Your task to perform on an android device: Find coffee shops on Maps Image 0: 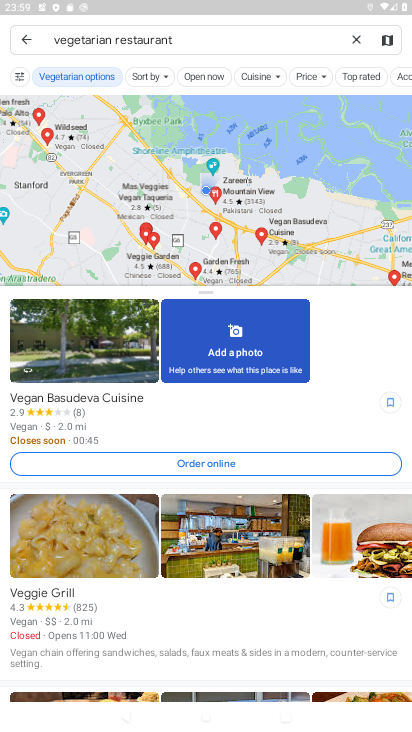
Step 0: click (285, 38)
Your task to perform on an android device: Find coffee shops on Maps Image 1: 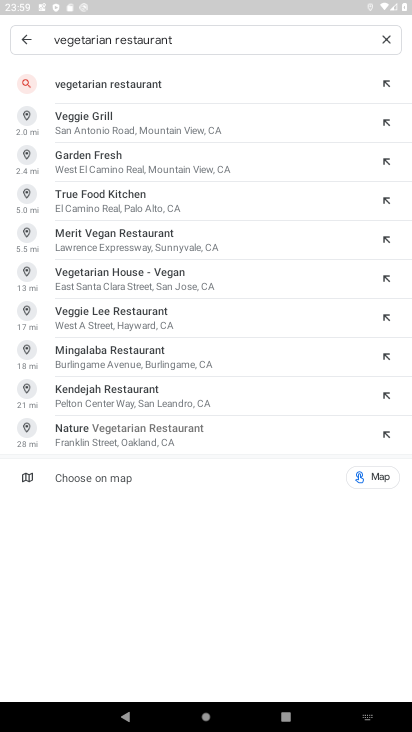
Step 1: click (385, 36)
Your task to perform on an android device: Find coffee shops on Maps Image 2: 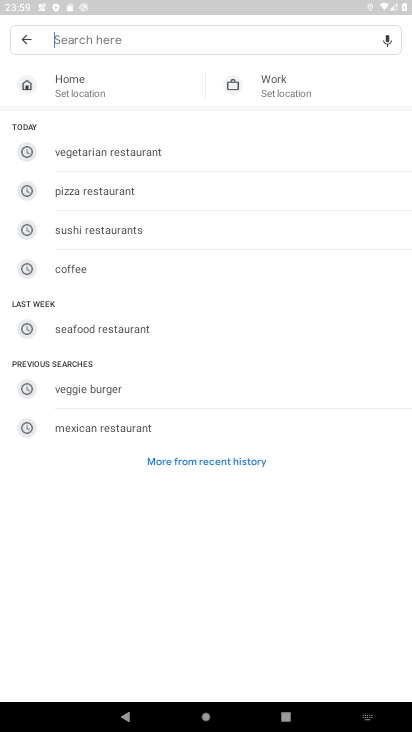
Step 2: type "coffee shops"
Your task to perform on an android device: Find coffee shops on Maps Image 3: 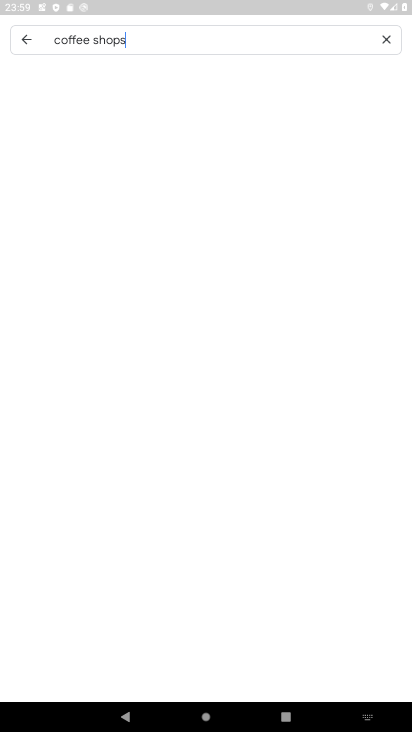
Step 3: type ""
Your task to perform on an android device: Find coffee shops on Maps Image 4: 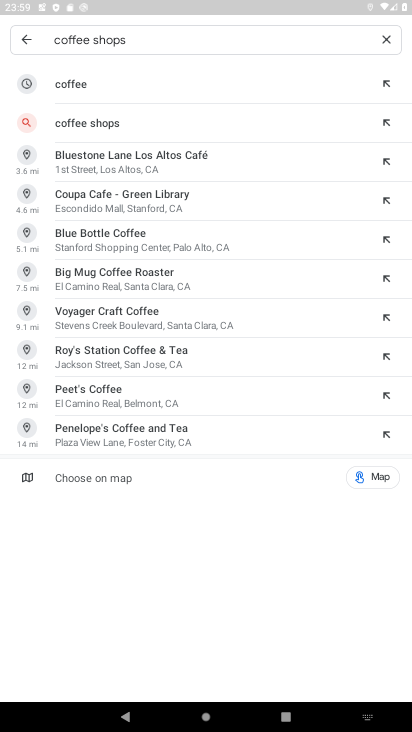
Step 4: click (89, 118)
Your task to perform on an android device: Find coffee shops on Maps Image 5: 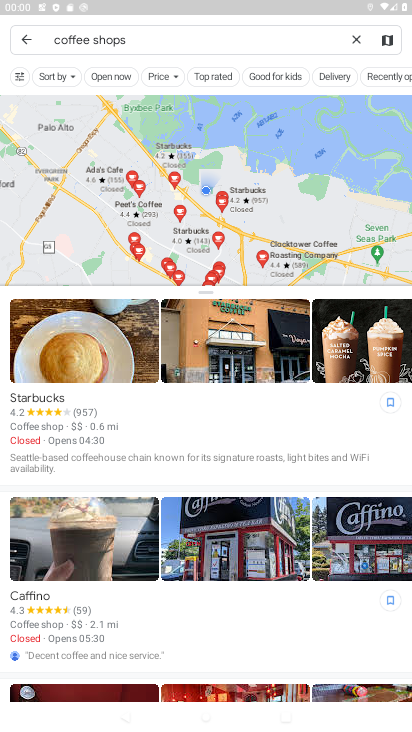
Step 5: task complete